Your task to perform on an android device: Open Google Chrome and open the bookmarks view Image 0: 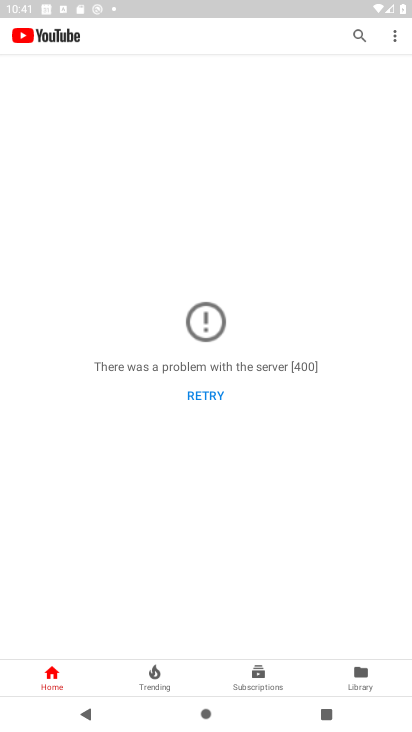
Step 0: press home button
Your task to perform on an android device: Open Google Chrome and open the bookmarks view Image 1: 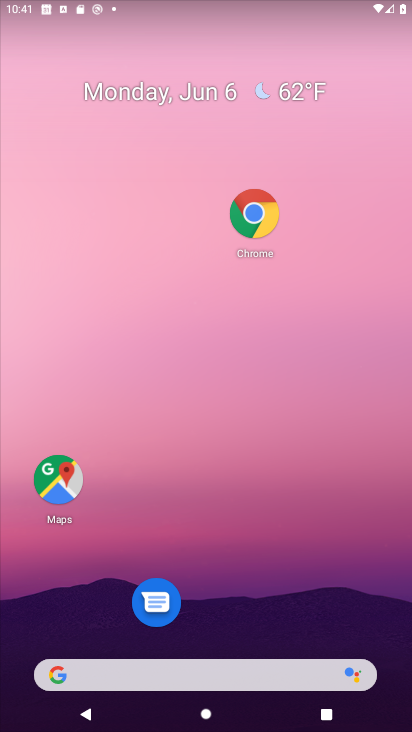
Step 1: drag from (270, 676) to (287, 194)
Your task to perform on an android device: Open Google Chrome and open the bookmarks view Image 2: 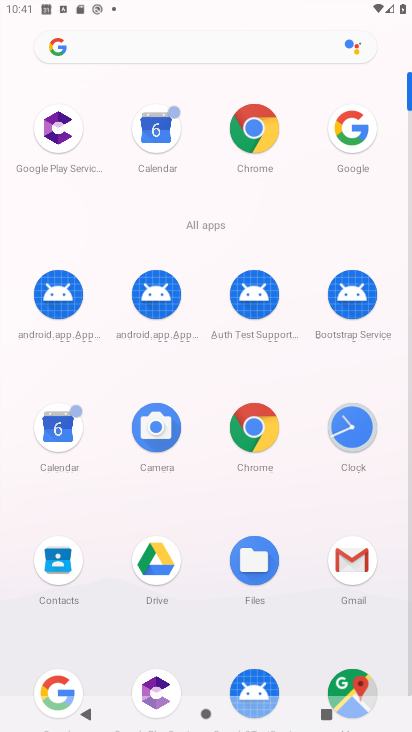
Step 2: click (256, 134)
Your task to perform on an android device: Open Google Chrome and open the bookmarks view Image 3: 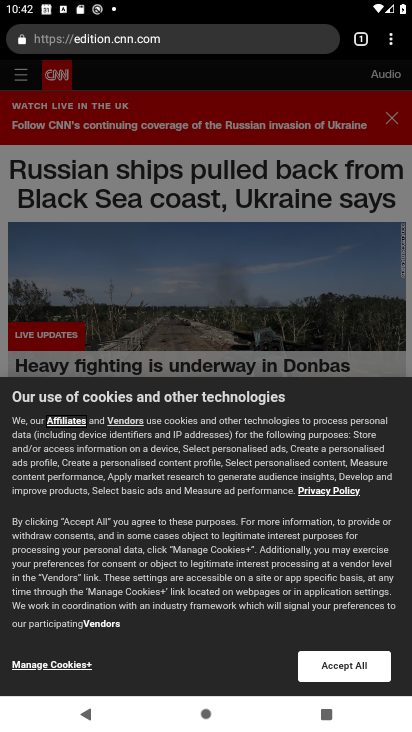
Step 3: click (402, 42)
Your task to perform on an android device: Open Google Chrome and open the bookmarks view Image 4: 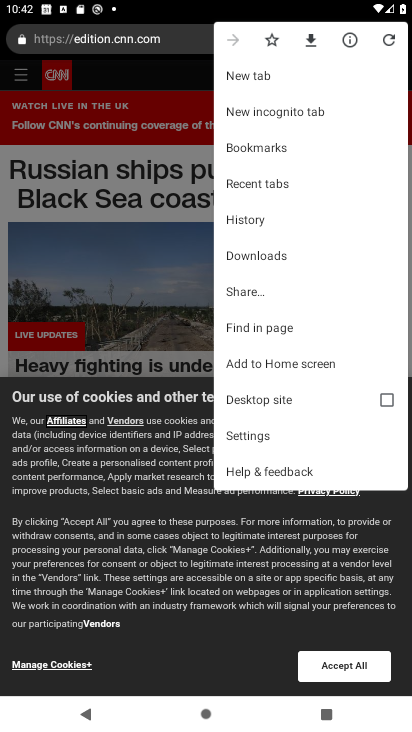
Step 4: click (264, 153)
Your task to perform on an android device: Open Google Chrome and open the bookmarks view Image 5: 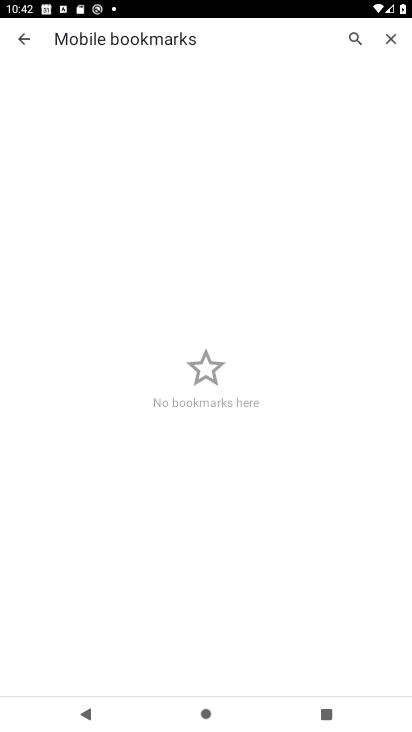
Step 5: task complete